Your task to perform on an android device: toggle notification dots Image 0: 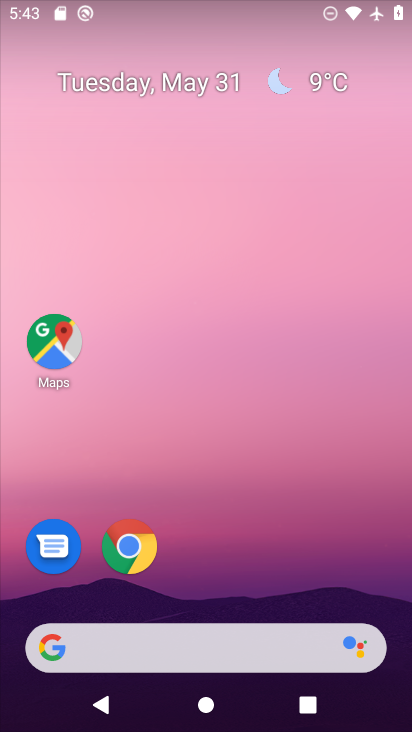
Step 0: drag from (263, 402) to (207, 12)
Your task to perform on an android device: toggle notification dots Image 1: 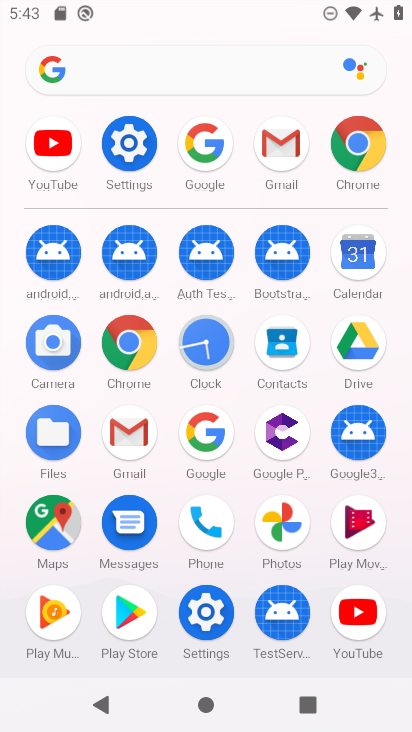
Step 1: click (134, 150)
Your task to perform on an android device: toggle notification dots Image 2: 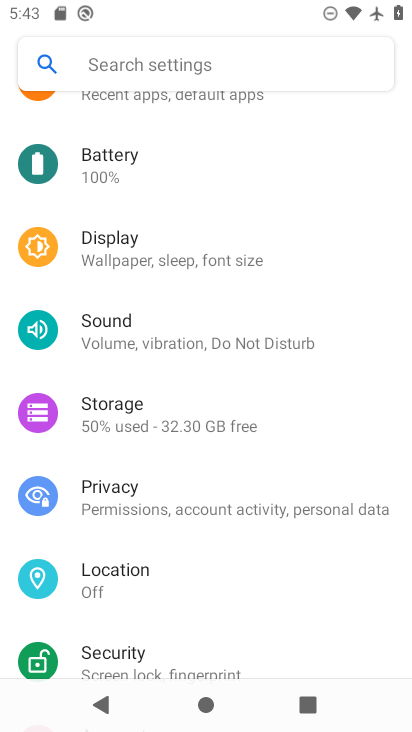
Step 2: drag from (210, 188) to (241, 573)
Your task to perform on an android device: toggle notification dots Image 3: 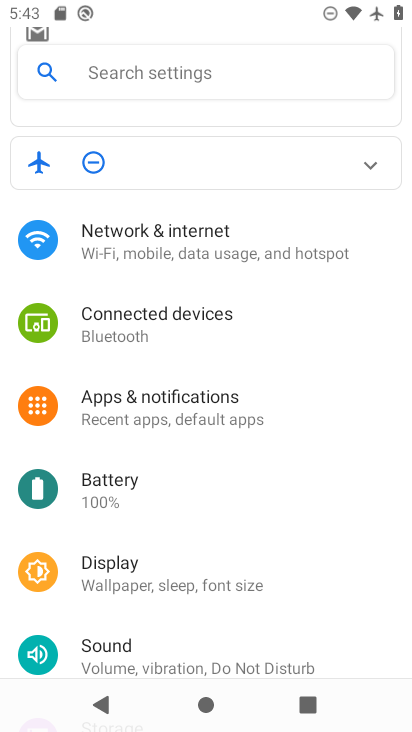
Step 3: click (221, 381)
Your task to perform on an android device: toggle notification dots Image 4: 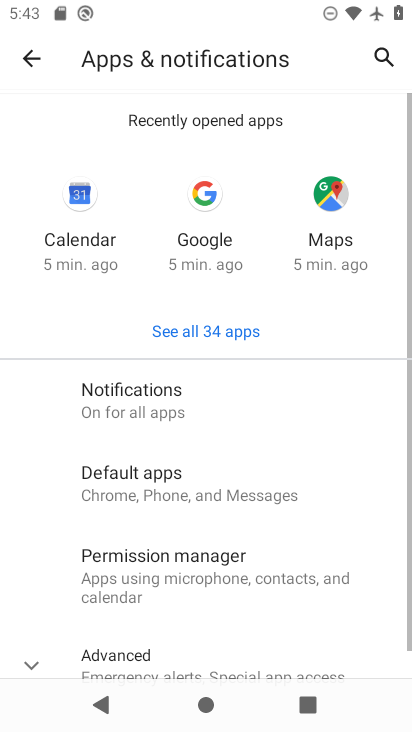
Step 4: click (205, 423)
Your task to perform on an android device: toggle notification dots Image 5: 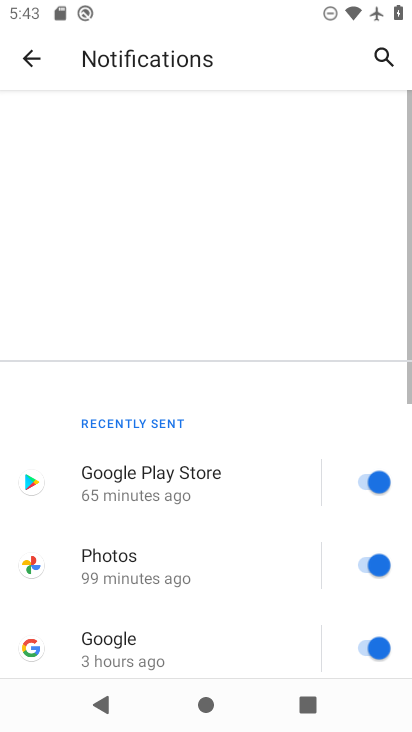
Step 5: drag from (250, 495) to (295, 49)
Your task to perform on an android device: toggle notification dots Image 6: 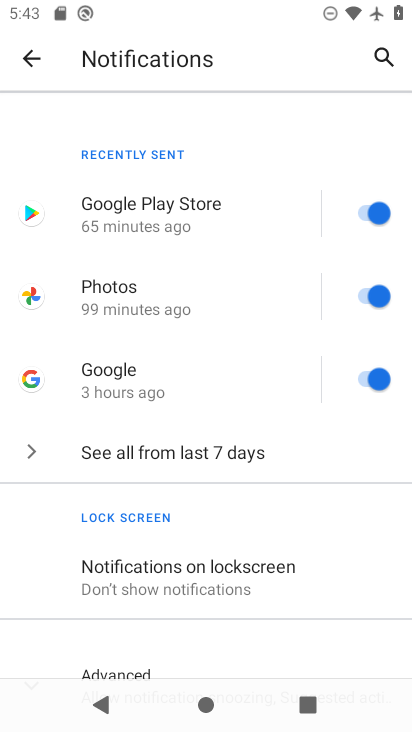
Step 6: click (257, 661)
Your task to perform on an android device: toggle notification dots Image 7: 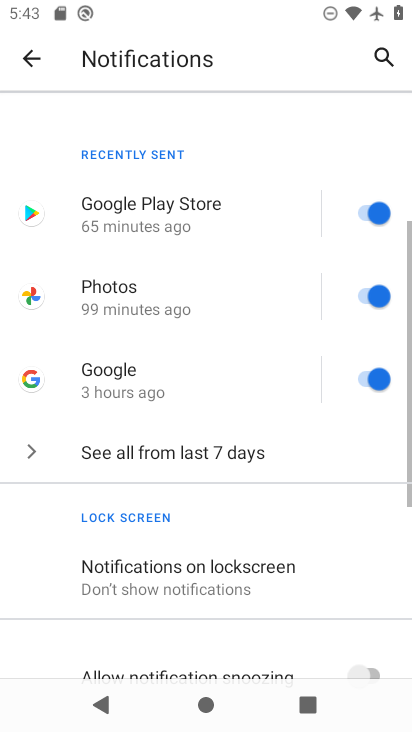
Step 7: drag from (231, 607) to (221, 71)
Your task to perform on an android device: toggle notification dots Image 8: 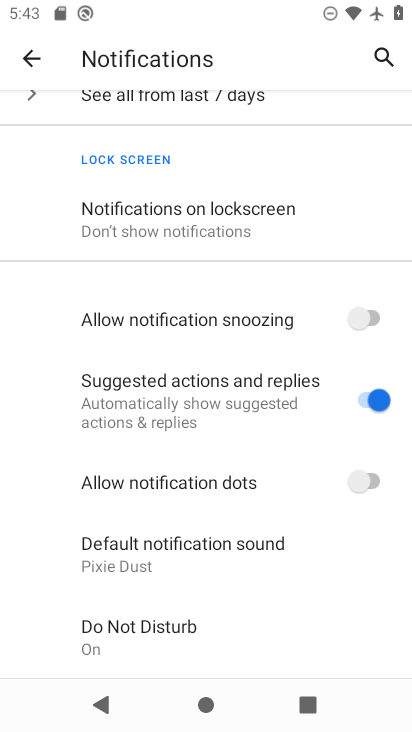
Step 8: click (370, 472)
Your task to perform on an android device: toggle notification dots Image 9: 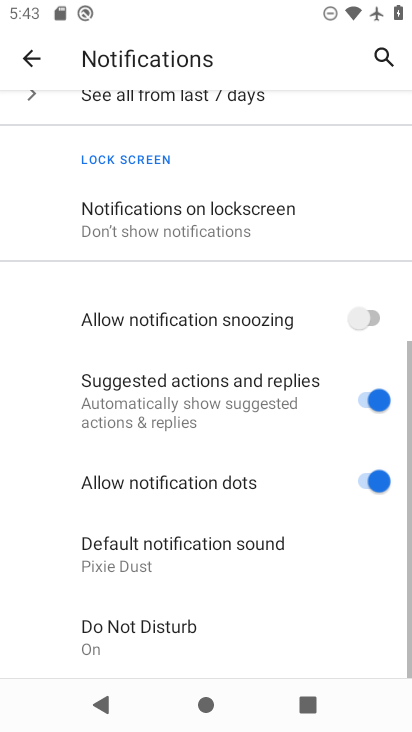
Step 9: task complete